Your task to perform on an android device: turn on airplane mode Image 0: 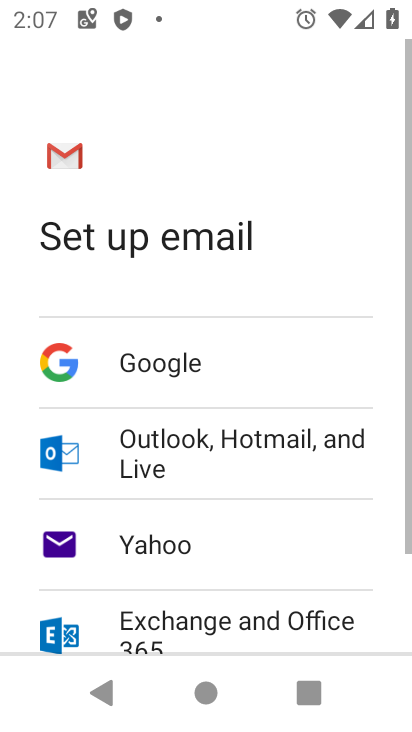
Step 0: press home button
Your task to perform on an android device: turn on airplane mode Image 1: 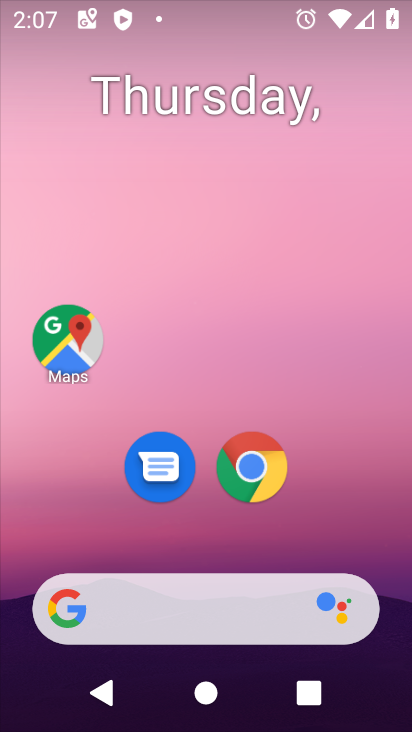
Step 1: drag from (305, 504) to (314, 155)
Your task to perform on an android device: turn on airplane mode Image 2: 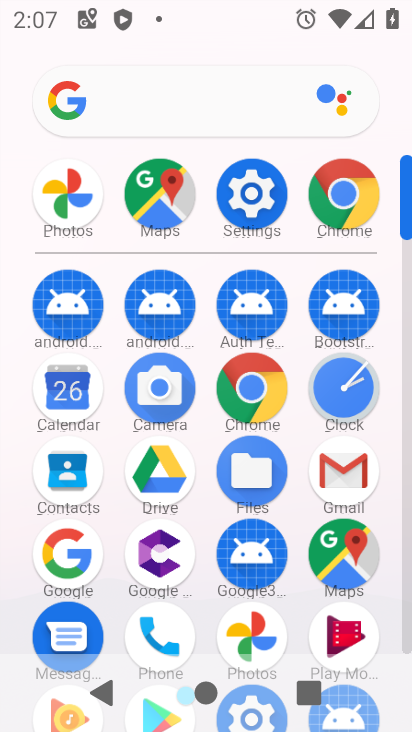
Step 2: drag from (285, 592) to (304, 290)
Your task to perform on an android device: turn on airplane mode Image 3: 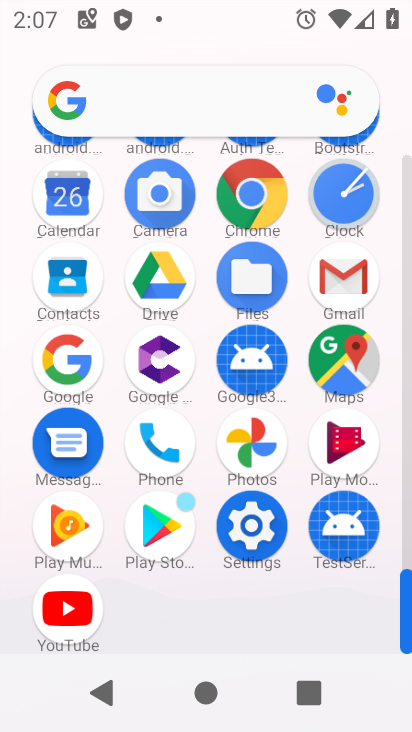
Step 3: click (241, 538)
Your task to perform on an android device: turn on airplane mode Image 4: 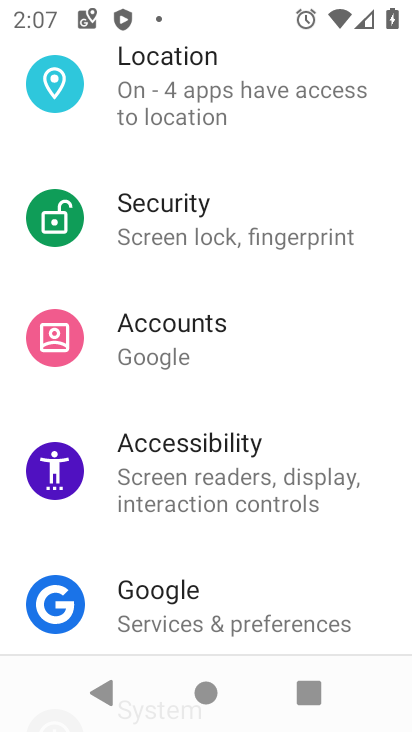
Step 4: drag from (276, 169) to (267, 546)
Your task to perform on an android device: turn on airplane mode Image 5: 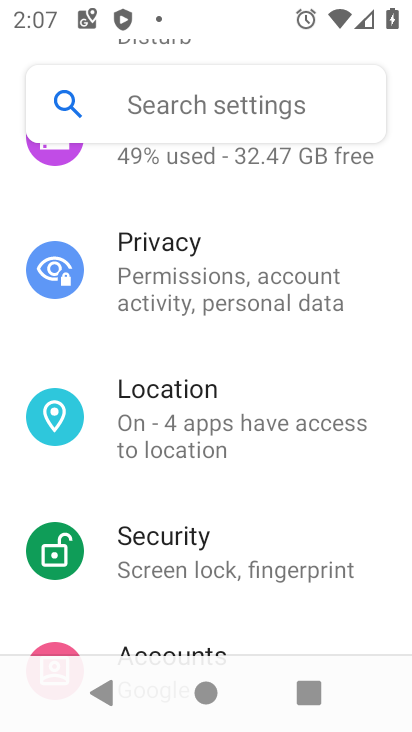
Step 5: drag from (285, 148) to (288, 521)
Your task to perform on an android device: turn on airplane mode Image 6: 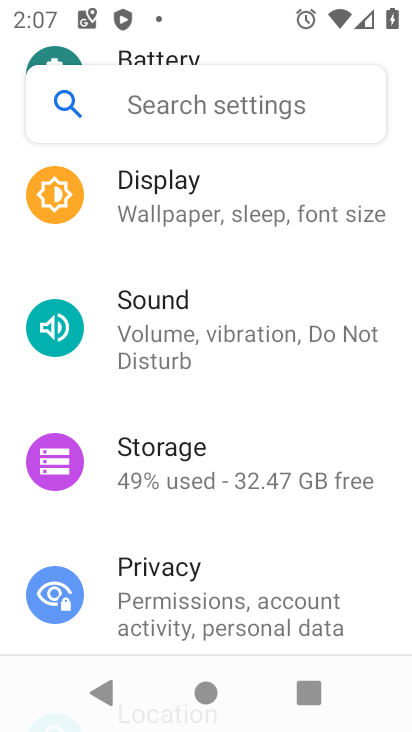
Step 6: drag from (282, 272) to (294, 587)
Your task to perform on an android device: turn on airplane mode Image 7: 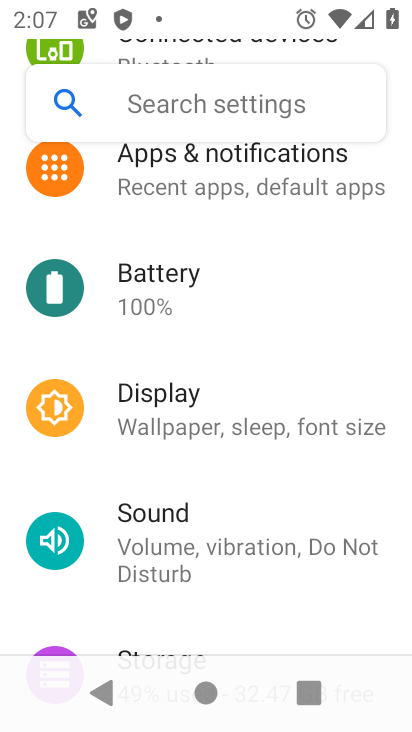
Step 7: drag from (281, 226) to (266, 573)
Your task to perform on an android device: turn on airplane mode Image 8: 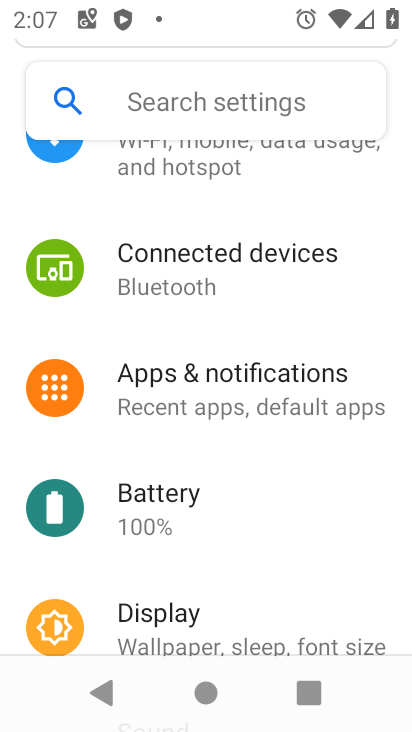
Step 8: drag from (297, 261) to (320, 591)
Your task to perform on an android device: turn on airplane mode Image 9: 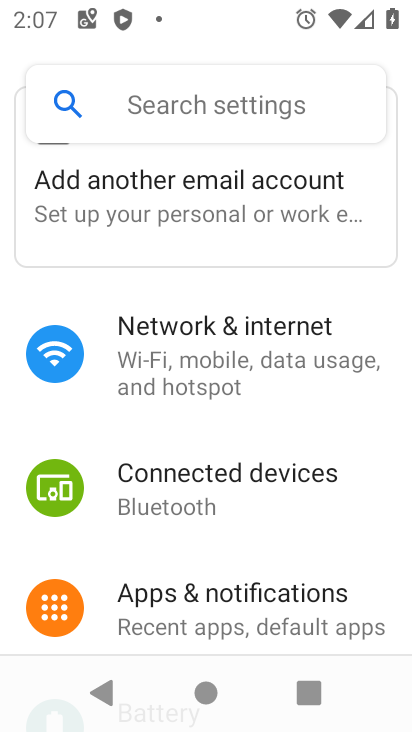
Step 9: click (294, 357)
Your task to perform on an android device: turn on airplane mode Image 10: 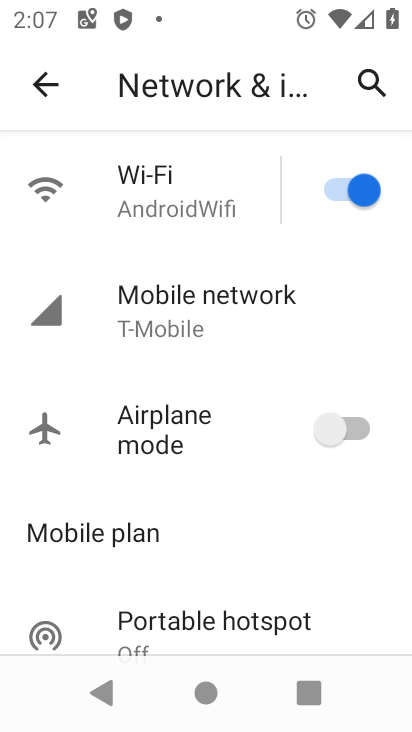
Step 10: click (351, 418)
Your task to perform on an android device: turn on airplane mode Image 11: 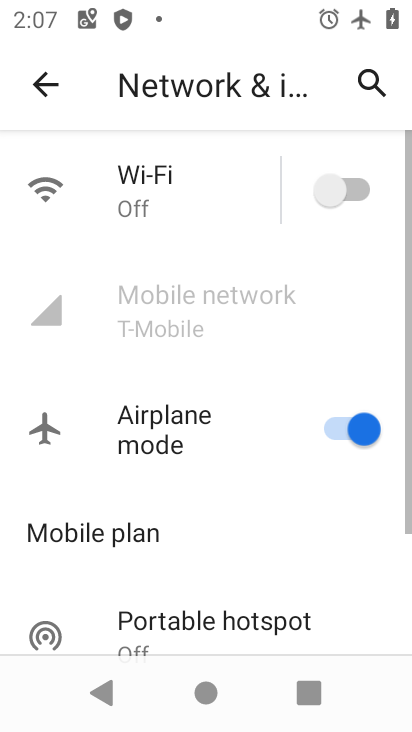
Step 11: task complete